Your task to perform on an android device: Open my contact list Image 0: 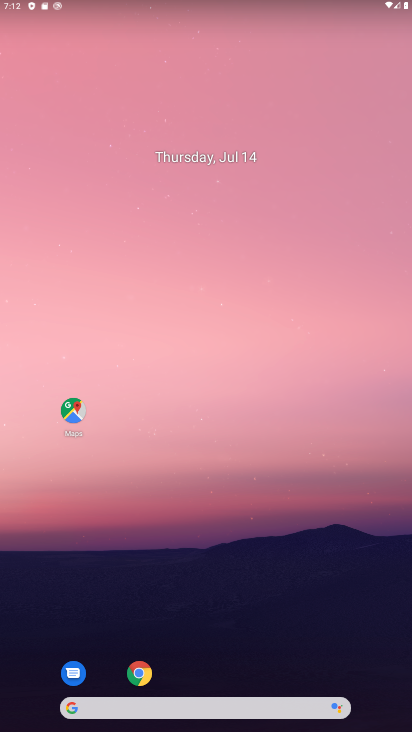
Step 0: click (211, 78)
Your task to perform on an android device: Open my contact list Image 1: 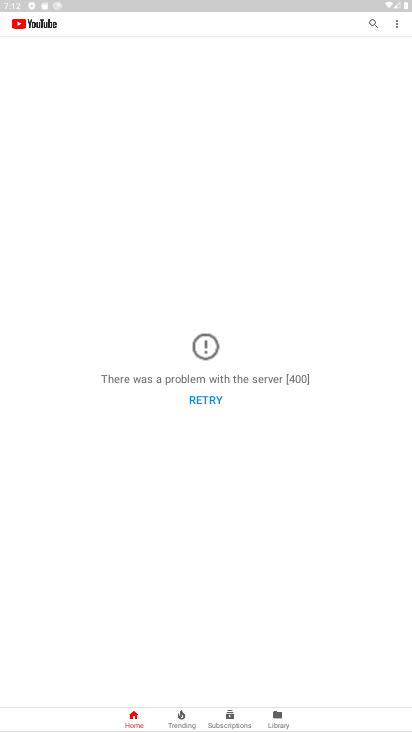
Step 1: press home button
Your task to perform on an android device: Open my contact list Image 2: 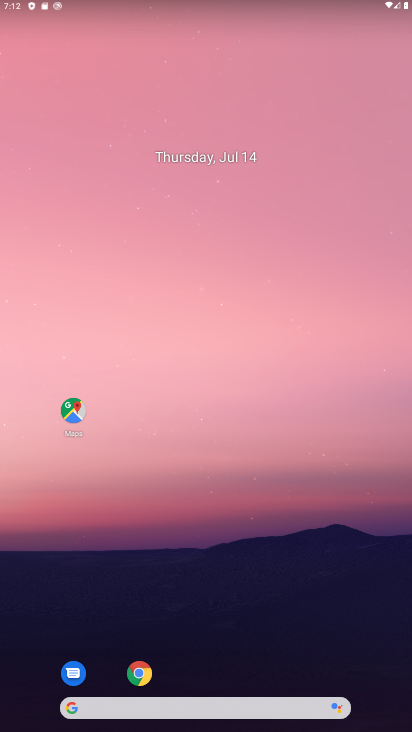
Step 2: drag from (244, 600) to (190, 86)
Your task to perform on an android device: Open my contact list Image 3: 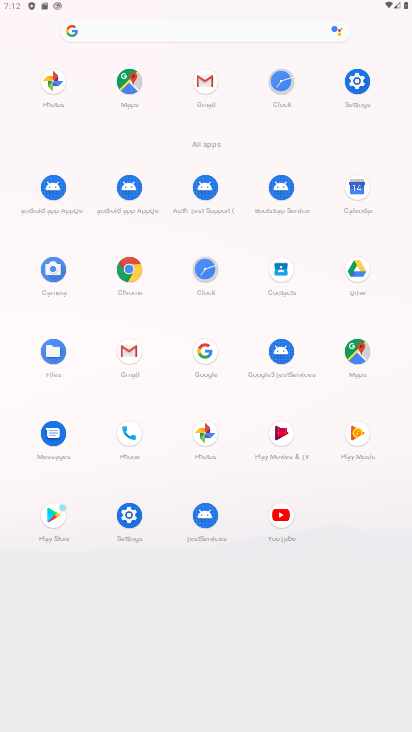
Step 3: click (283, 268)
Your task to perform on an android device: Open my contact list Image 4: 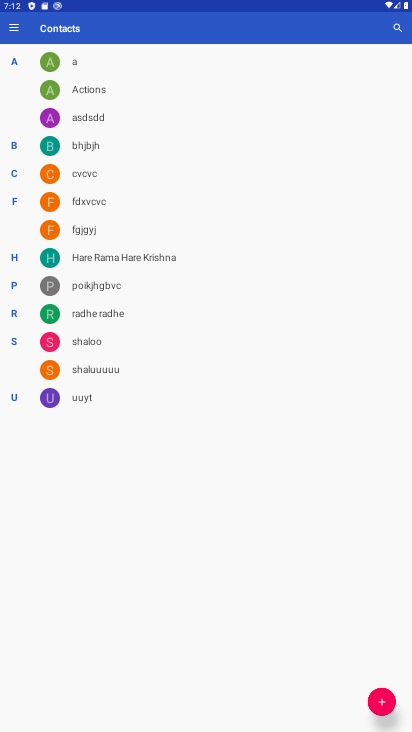
Step 4: task complete